Your task to perform on an android device: Go to Yahoo.com Image 0: 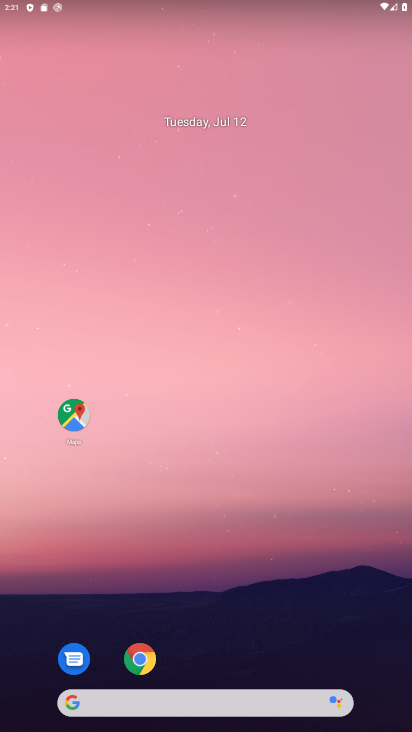
Step 0: click (144, 660)
Your task to perform on an android device: Go to Yahoo.com Image 1: 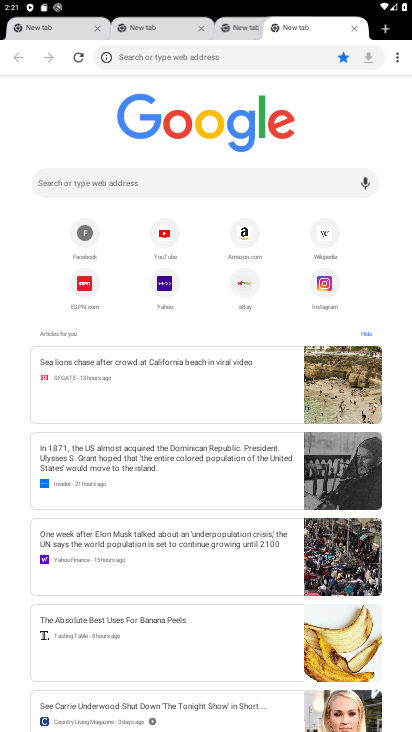
Step 1: click (167, 283)
Your task to perform on an android device: Go to Yahoo.com Image 2: 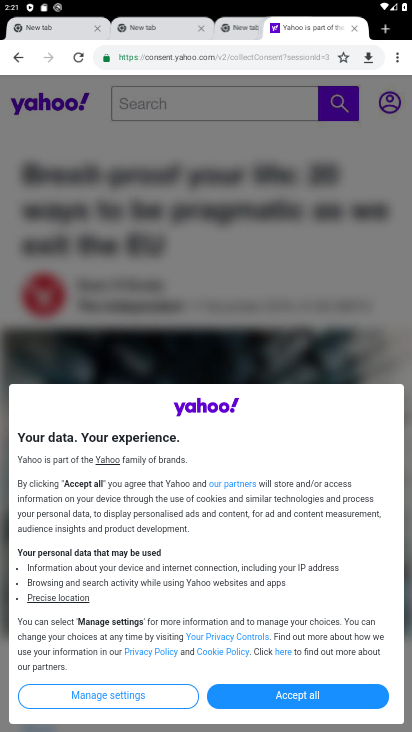
Step 2: task complete